Your task to perform on an android device: snooze an email in the gmail app Image 0: 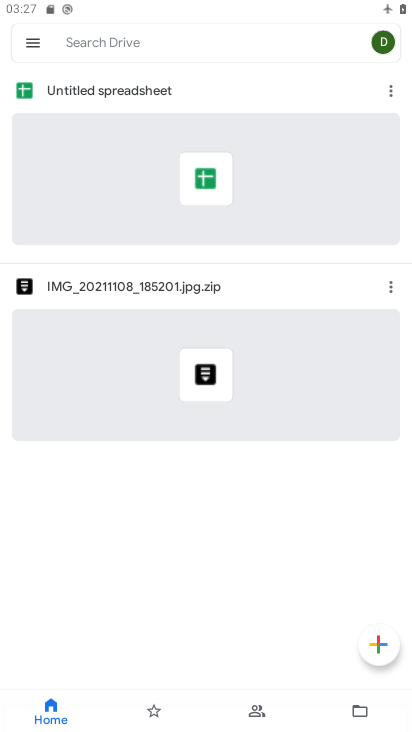
Step 0: press home button
Your task to perform on an android device: snooze an email in the gmail app Image 1: 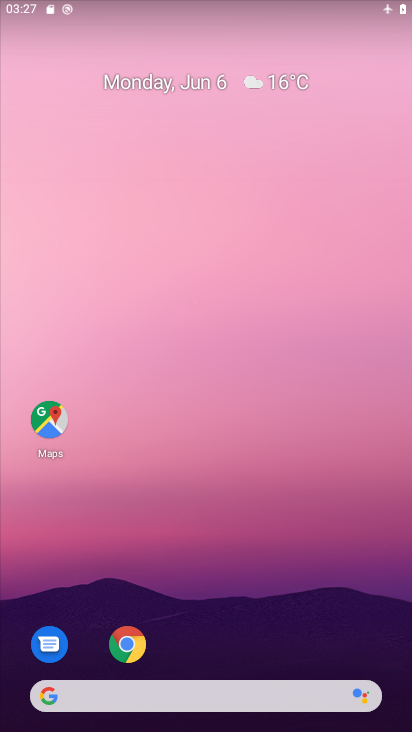
Step 1: drag from (232, 622) to (337, 83)
Your task to perform on an android device: snooze an email in the gmail app Image 2: 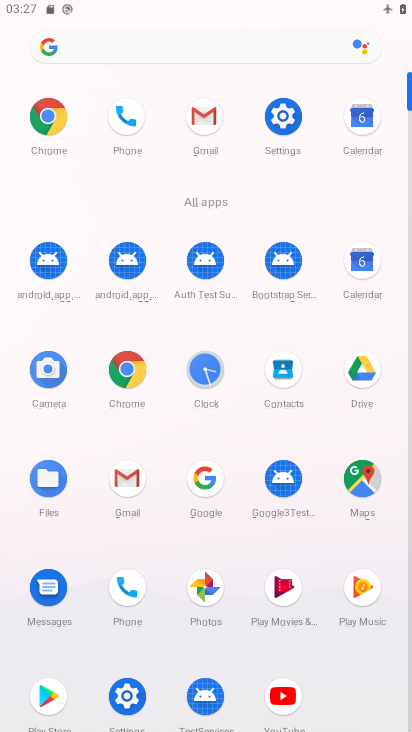
Step 2: click (124, 501)
Your task to perform on an android device: snooze an email in the gmail app Image 3: 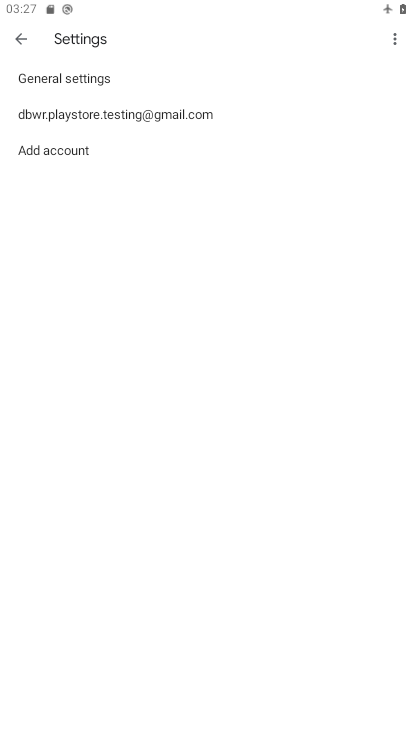
Step 3: click (17, 44)
Your task to perform on an android device: snooze an email in the gmail app Image 4: 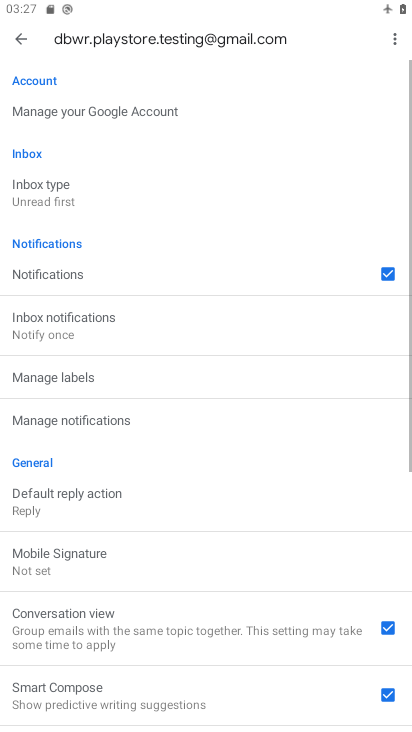
Step 4: click (23, 41)
Your task to perform on an android device: snooze an email in the gmail app Image 5: 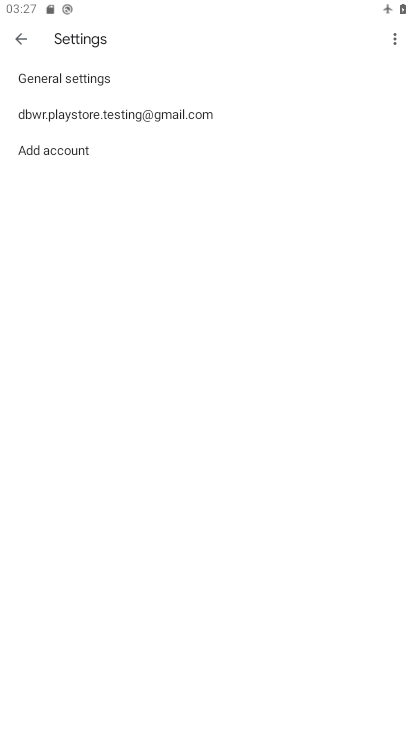
Step 5: click (23, 41)
Your task to perform on an android device: snooze an email in the gmail app Image 6: 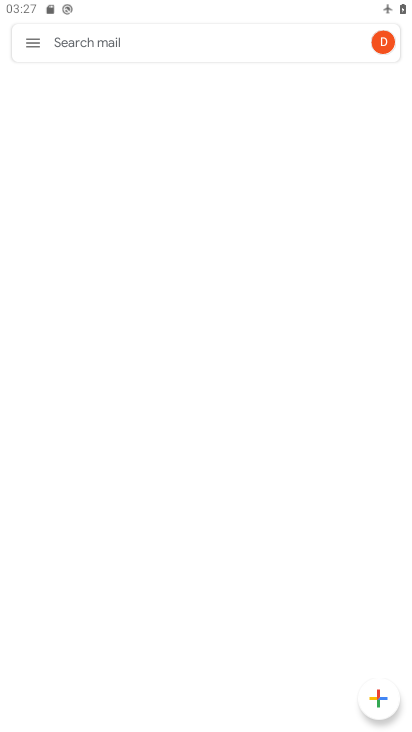
Step 6: click (23, 41)
Your task to perform on an android device: snooze an email in the gmail app Image 7: 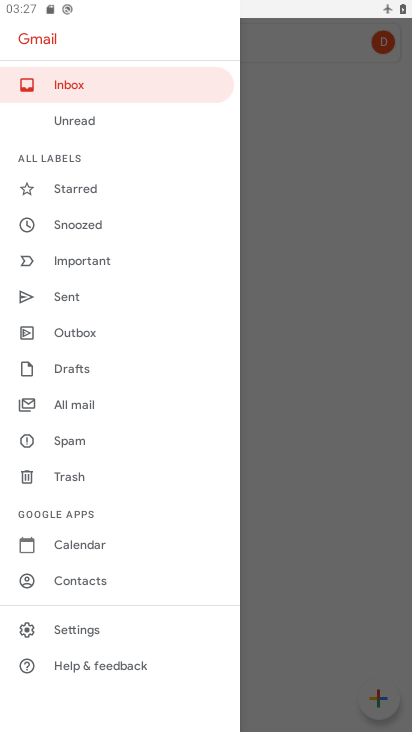
Step 7: click (77, 405)
Your task to perform on an android device: snooze an email in the gmail app Image 8: 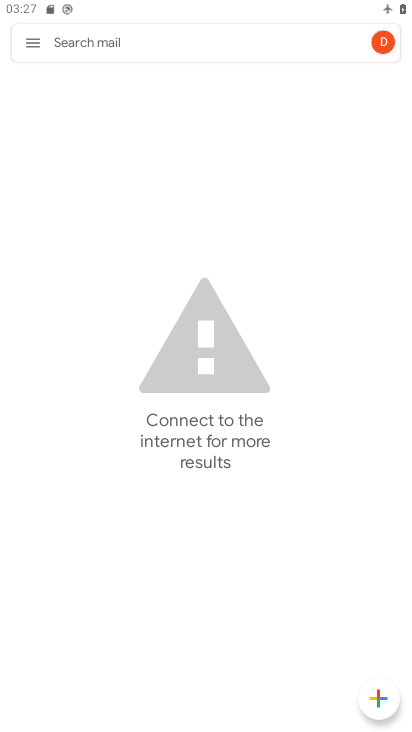
Step 8: task complete